Your task to perform on an android device: Go to Android settings Image 0: 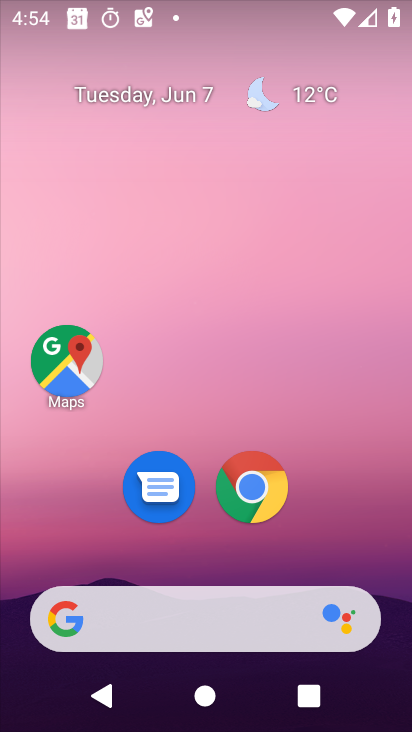
Step 0: drag from (177, 544) to (244, 17)
Your task to perform on an android device: Go to Android settings Image 1: 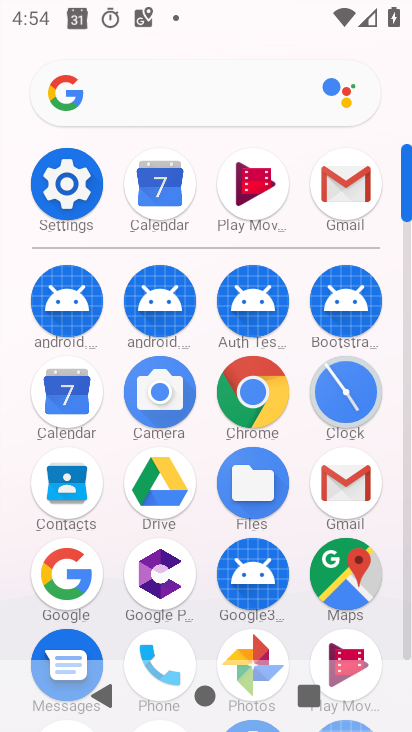
Step 1: click (78, 173)
Your task to perform on an android device: Go to Android settings Image 2: 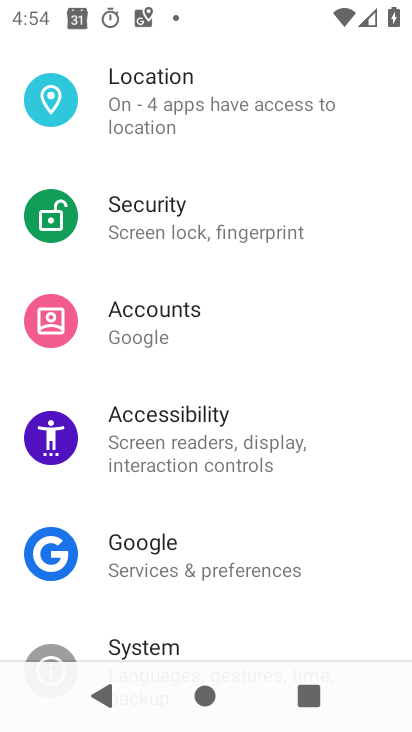
Step 2: drag from (202, 594) to (209, 112)
Your task to perform on an android device: Go to Android settings Image 3: 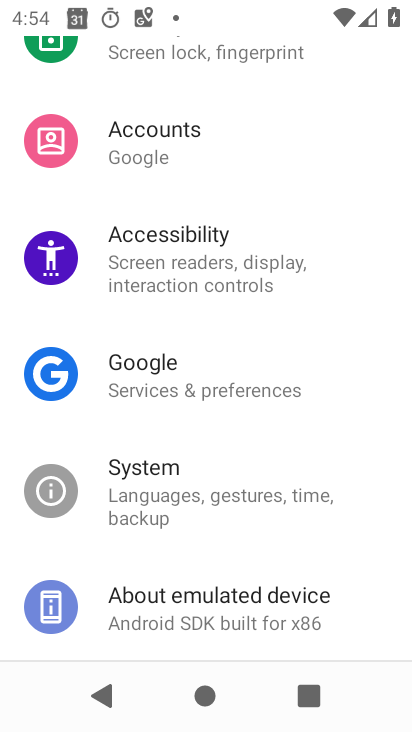
Step 3: drag from (134, 522) to (158, 17)
Your task to perform on an android device: Go to Android settings Image 4: 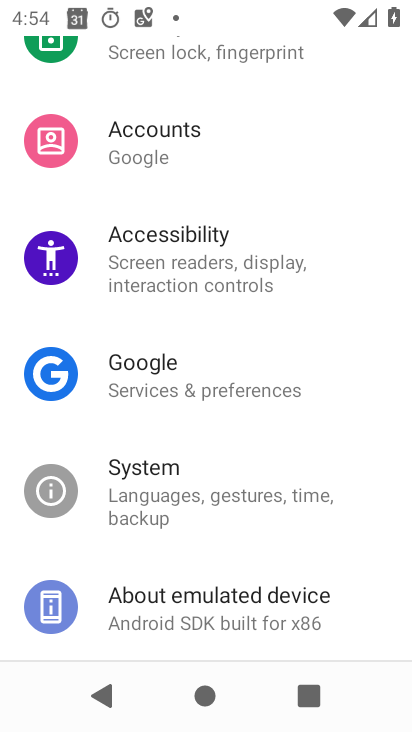
Step 4: click (146, 600)
Your task to perform on an android device: Go to Android settings Image 5: 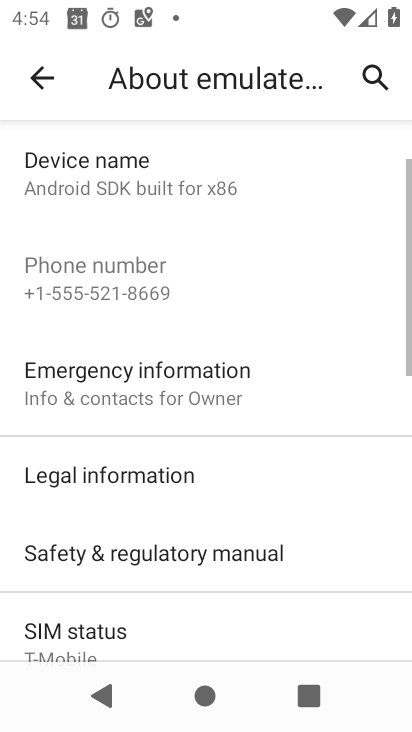
Step 5: task complete